Your task to perform on an android device: change text size in settings app Image 0: 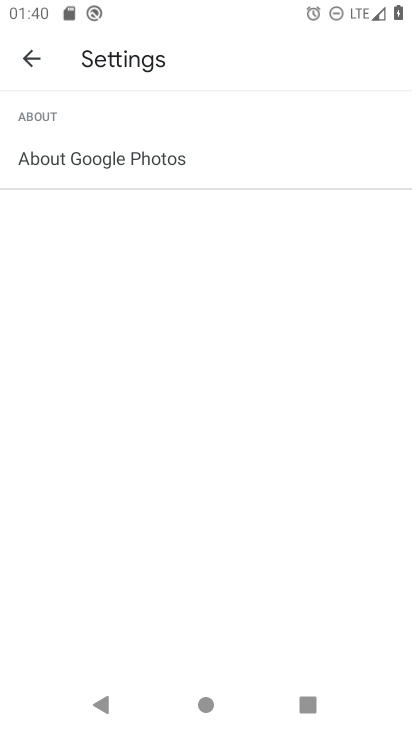
Step 0: press home button
Your task to perform on an android device: change text size in settings app Image 1: 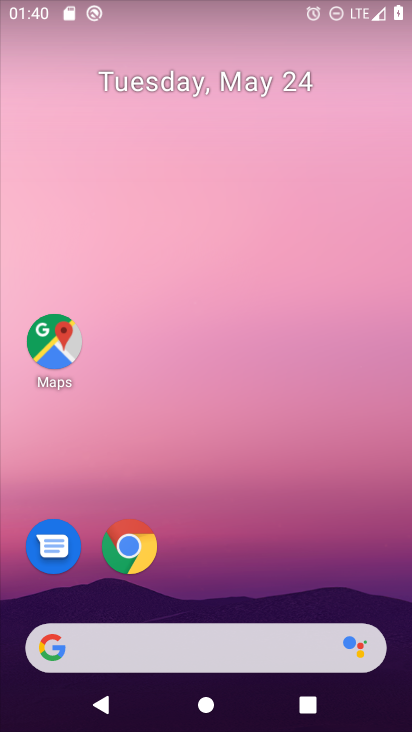
Step 1: drag from (211, 611) to (224, 4)
Your task to perform on an android device: change text size in settings app Image 2: 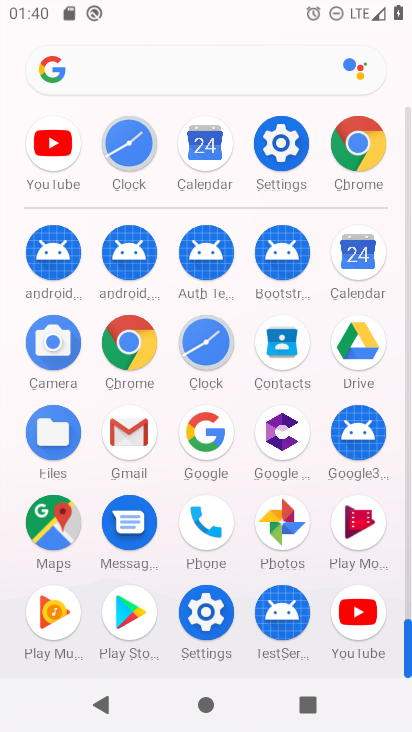
Step 2: click (277, 124)
Your task to perform on an android device: change text size in settings app Image 3: 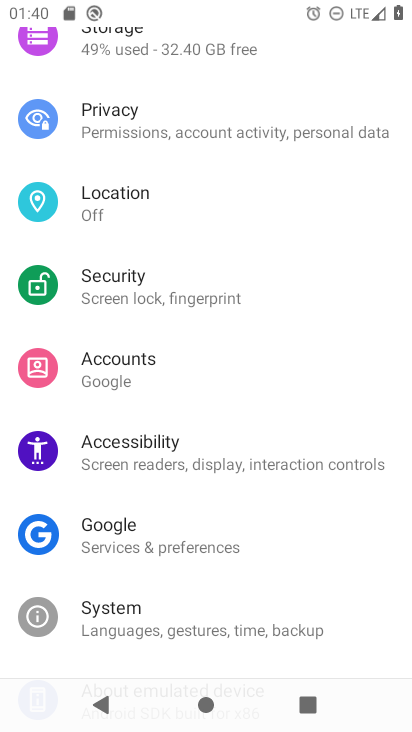
Step 3: drag from (246, 644) to (291, 120)
Your task to perform on an android device: change text size in settings app Image 4: 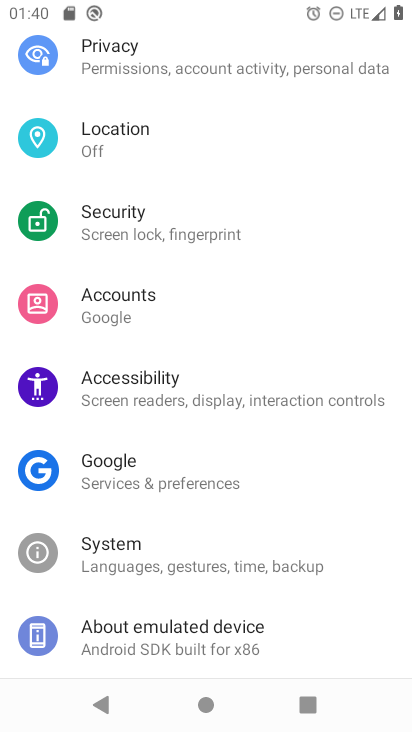
Step 4: click (177, 384)
Your task to perform on an android device: change text size in settings app Image 5: 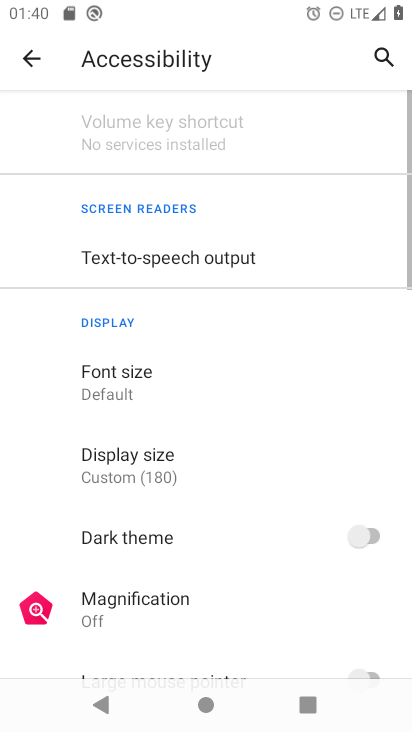
Step 5: click (177, 378)
Your task to perform on an android device: change text size in settings app Image 6: 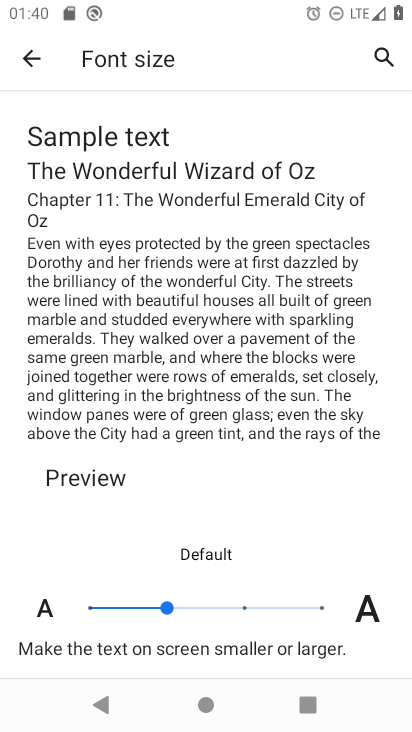
Step 6: click (99, 607)
Your task to perform on an android device: change text size in settings app Image 7: 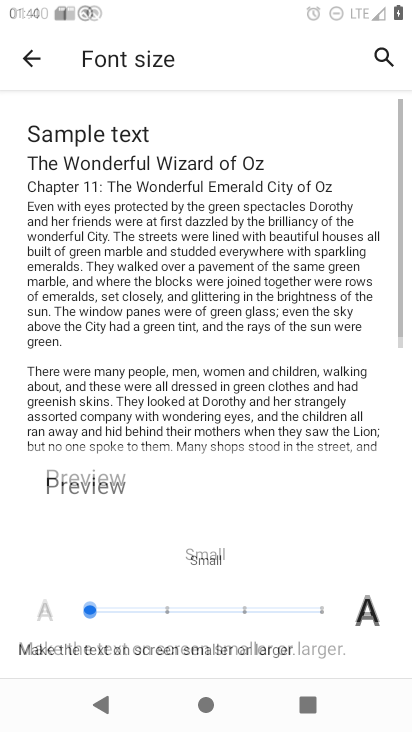
Step 7: task complete